Your task to perform on an android device: install app "Google Maps" Image 0: 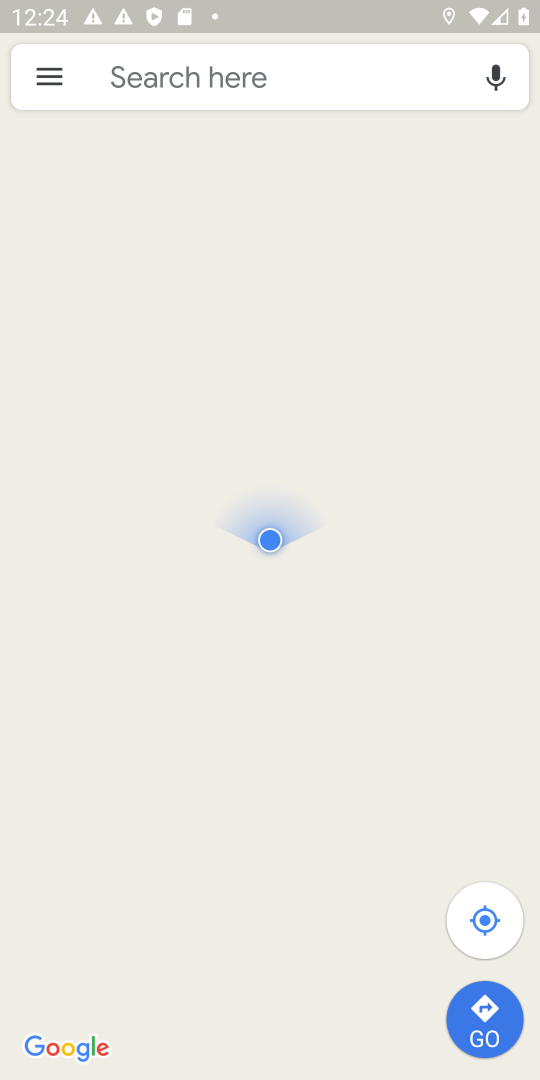
Step 0: press home button
Your task to perform on an android device: install app "Google Maps" Image 1: 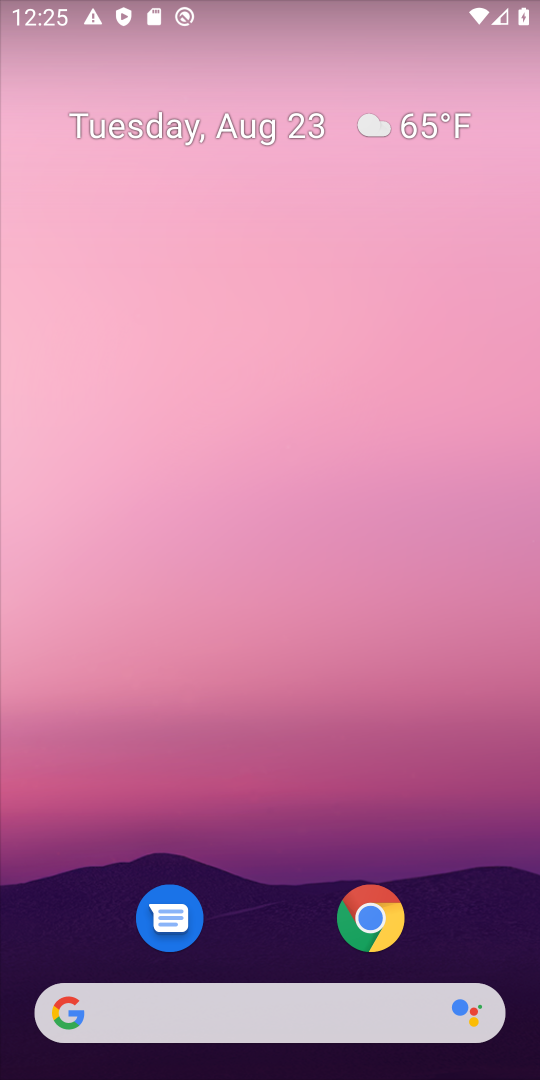
Step 1: drag from (277, 949) to (306, 111)
Your task to perform on an android device: install app "Google Maps" Image 2: 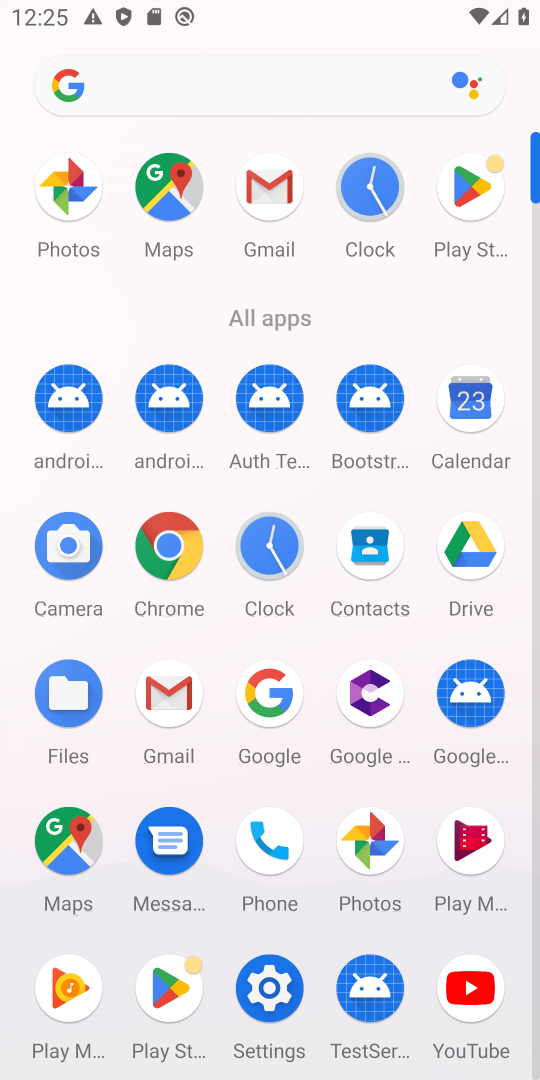
Step 2: click (464, 179)
Your task to perform on an android device: install app "Google Maps" Image 3: 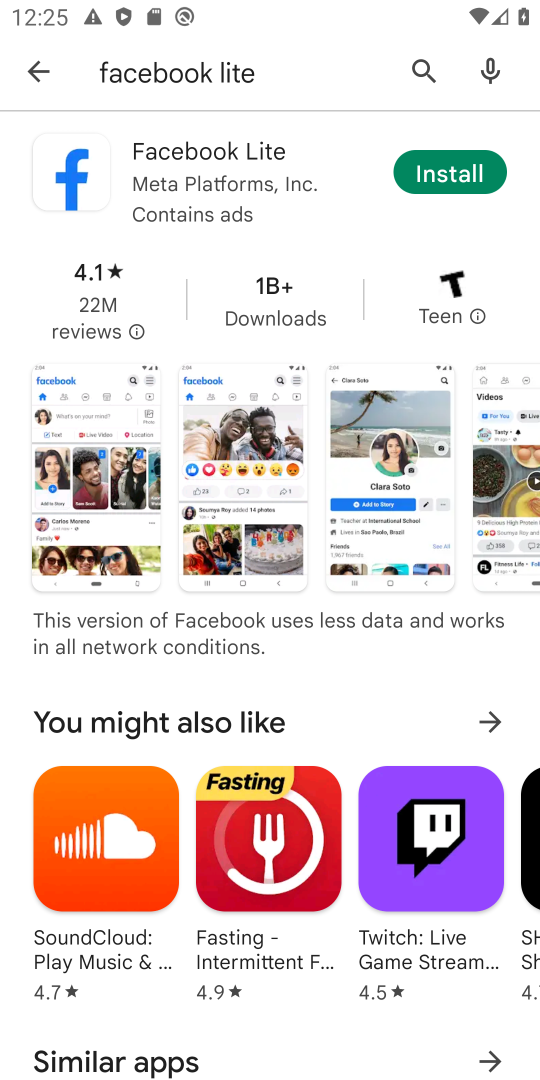
Step 3: click (410, 67)
Your task to perform on an android device: install app "Google Maps" Image 4: 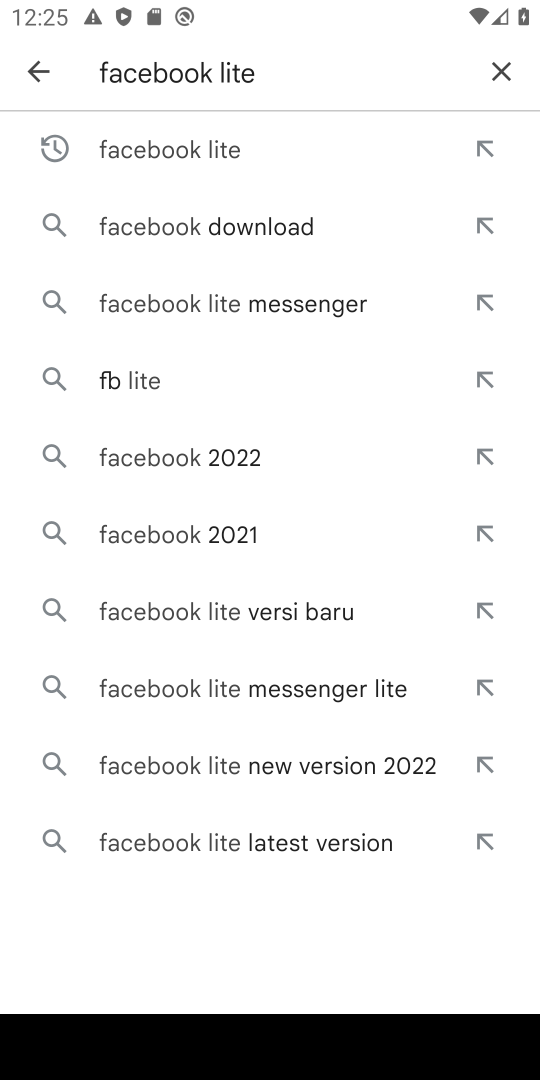
Step 4: click (507, 70)
Your task to perform on an android device: install app "Google Maps" Image 5: 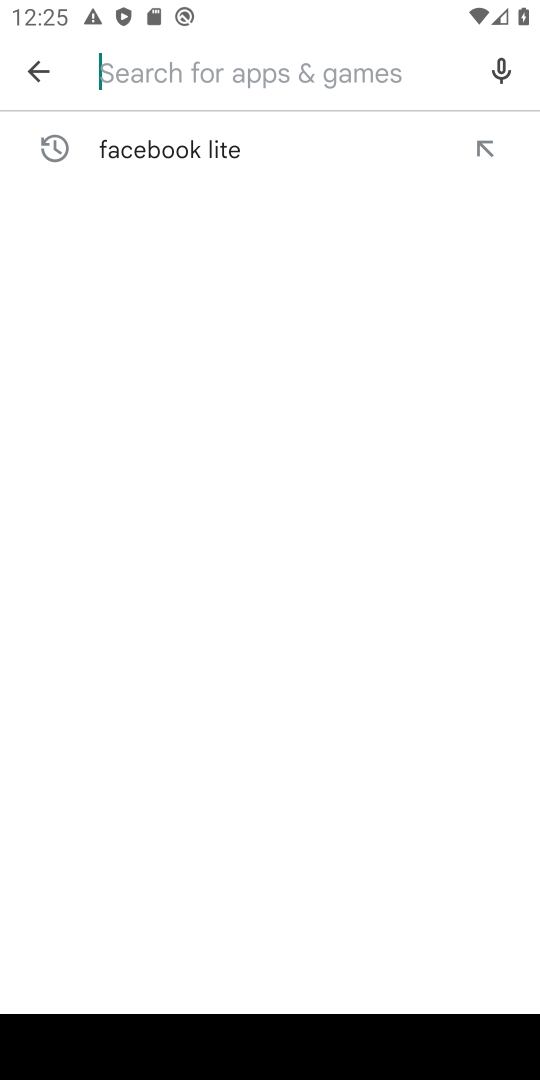
Step 5: type "Google Maps"
Your task to perform on an android device: install app "Google Maps" Image 6: 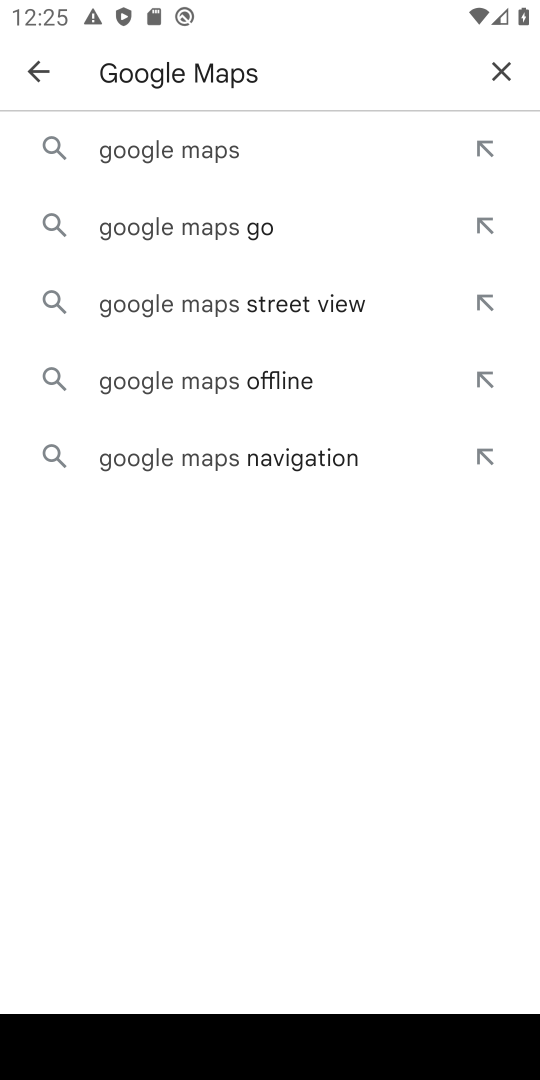
Step 6: click (261, 155)
Your task to perform on an android device: install app "Google Maps" Image 7: 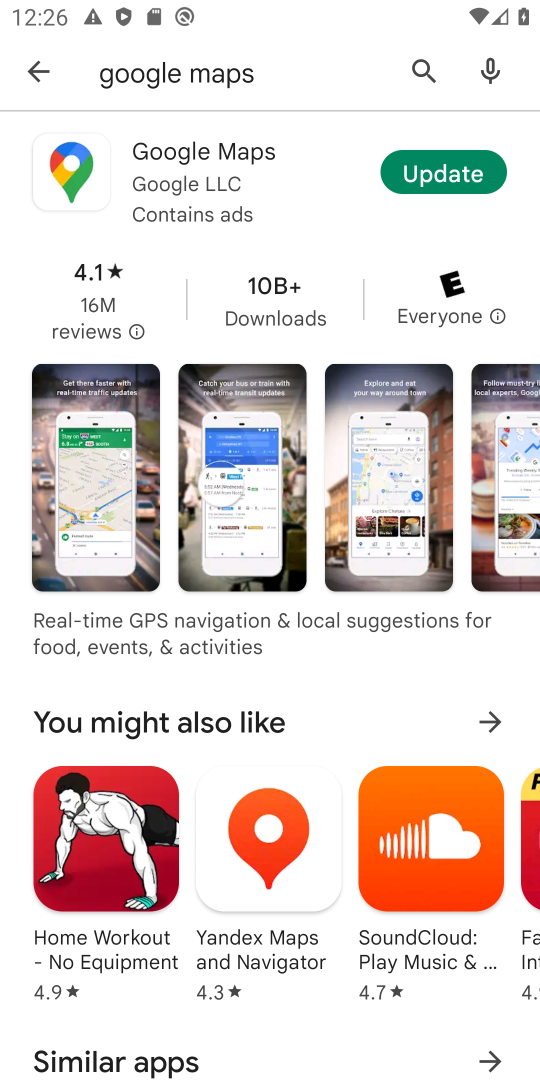
Step 7: click (439, 171)
Your task to perform on an android device: install app "Google Maps" Image 8: 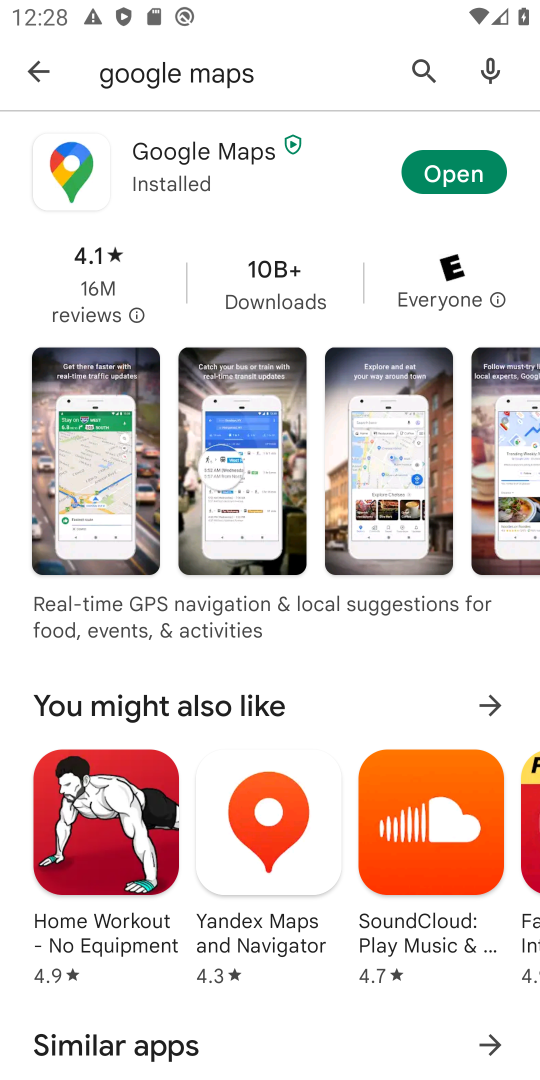
Step 8: click (463, 170)
Your task to perform on an android device: install app "Google Maps" Image 9: 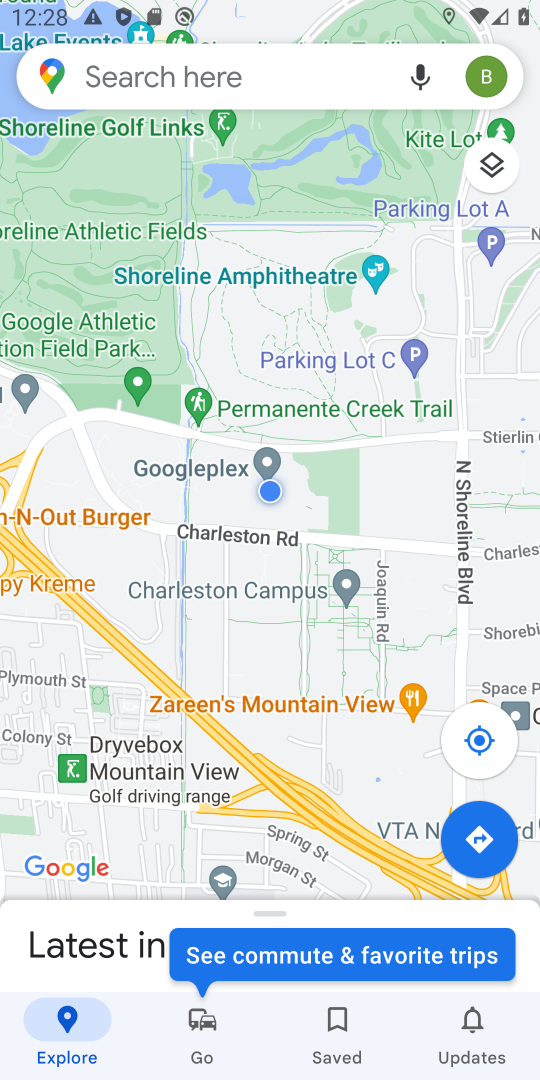
Step 9: task complete